Your task to perform on an android device: Open Google Chrome and click the shortcut for Amazon.com Image 0: 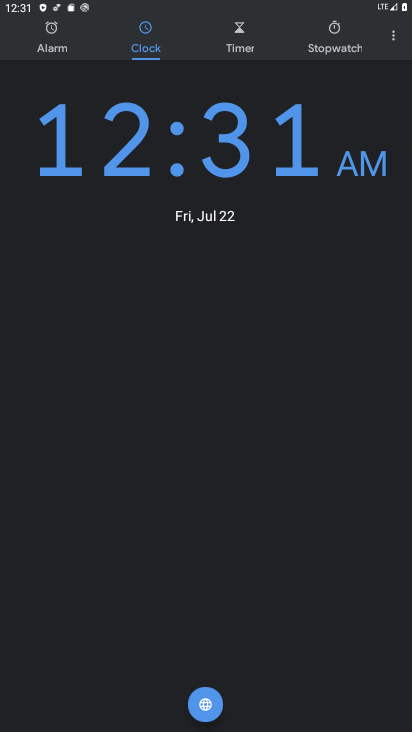
Step 0: press home button
Your task to perform on an android device: Open Google Chrome and click the shortcut for Amazon.com Image 1: 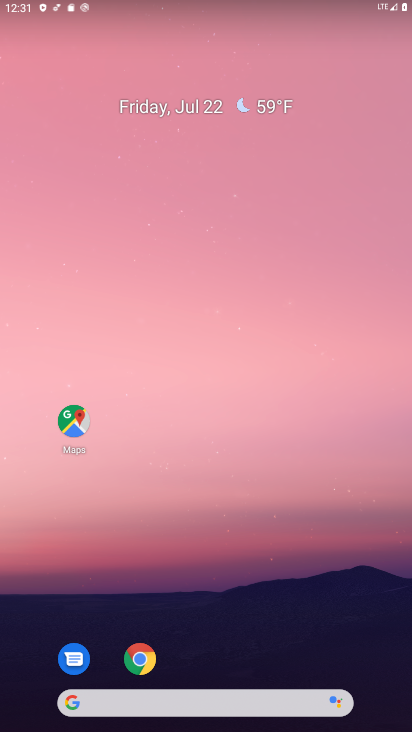
Step 1: click (130, 655)
Your task to perform on an android device: Open Google Chrome and click the shortcut for Amazon.com Image 2: 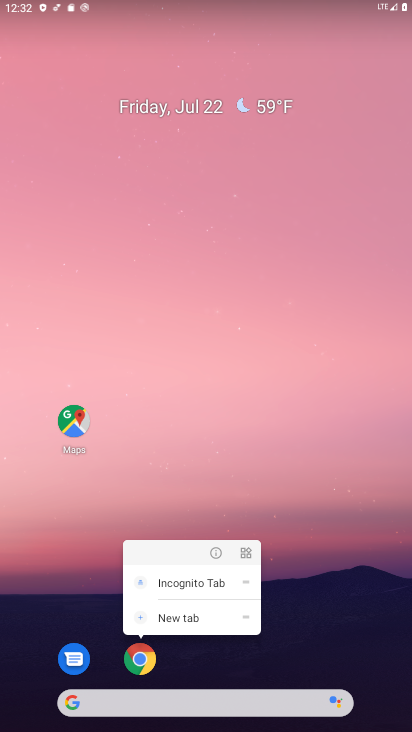
Step 2: click (131, 654)
Your task to perform on an android device: Open Google Chrome and click the shortcut for Amazon.com Image 3: 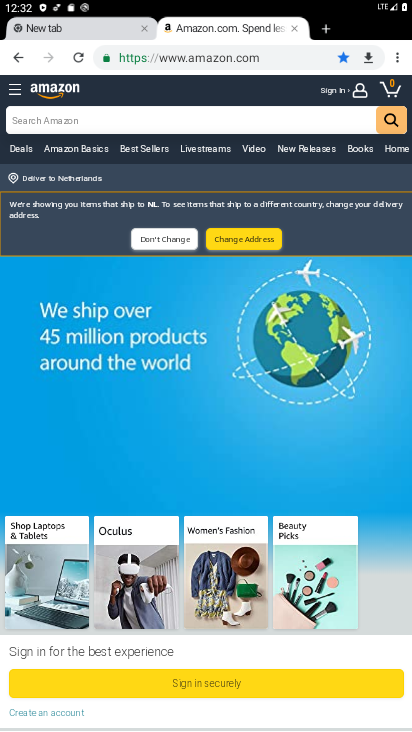
Step 3: task complete